Your task to perform on an android device: manage bookmarks in the chrome app Image 0: 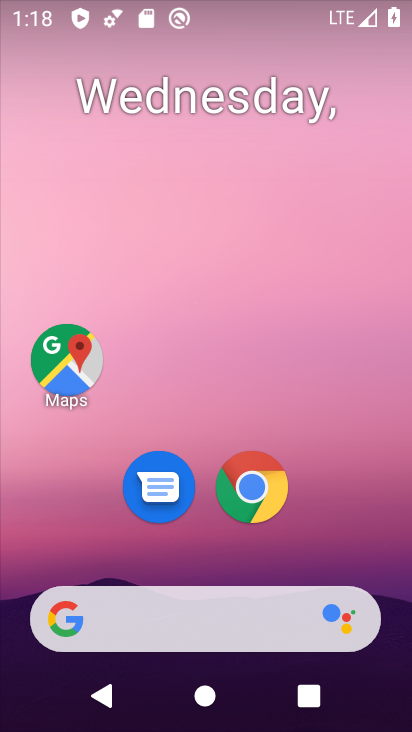
Step 0: click (266, 493)
Your task to perform on an android device: manage bookmarks in the chrome app Image 1: 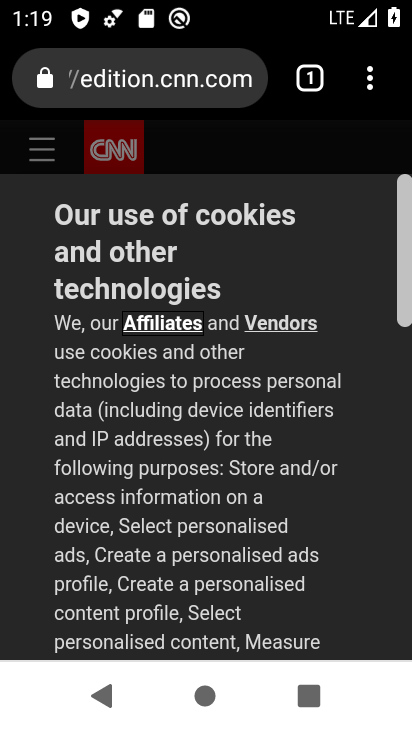
Step 1: task complete